Your task to perform on an android device: Open Android settings Image 0: 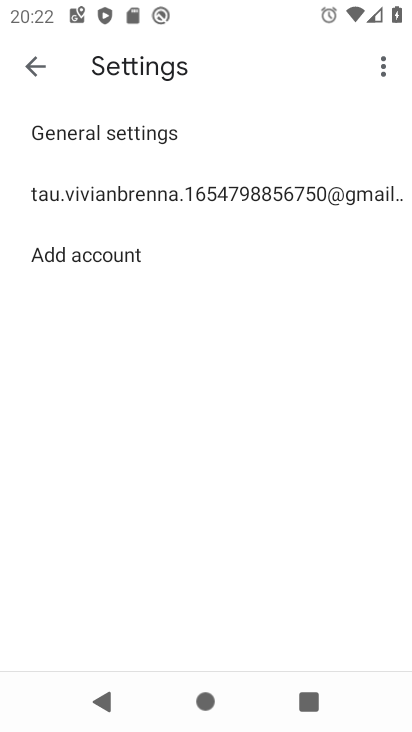
Step 0: press home button
Your task to perform on an android device: Open Android settings Image 1: 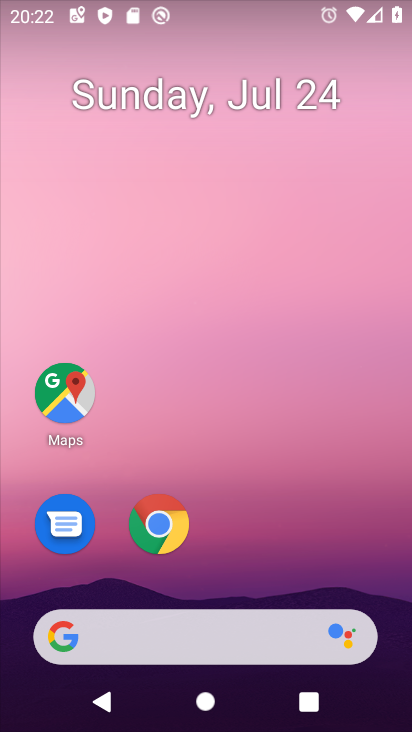
Step 1: drag from (268, 539) to (288, 0)
Your task to perform on an android device: Open Android settings Image 2: 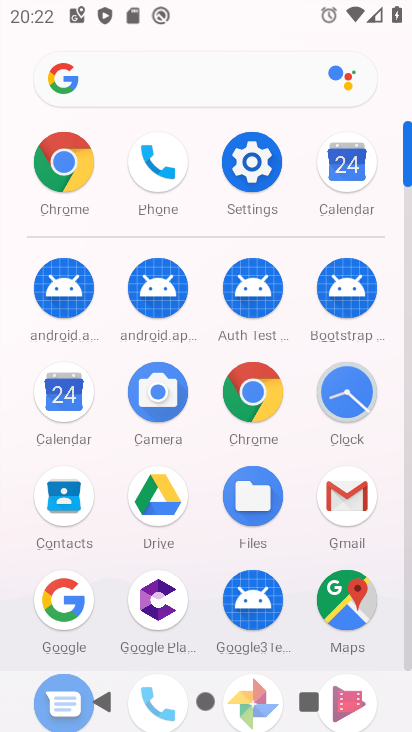
Step 2: drag from (216, 589) to (240, 10)
Your task to perform on an android device: Open Android settings Image 3: 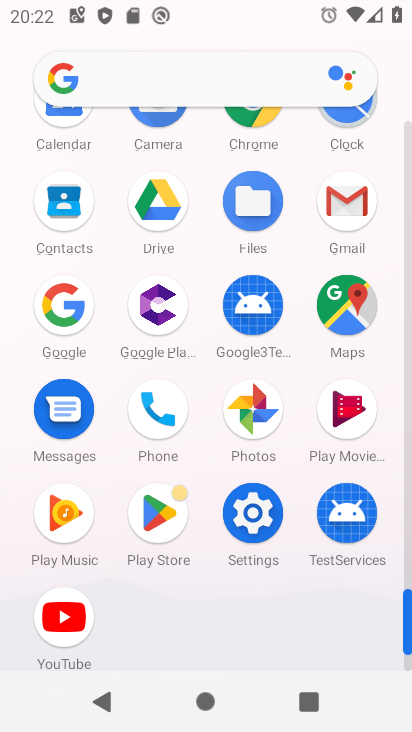
Step 3: click (246, 521)
Your task to perform on an android device: Open Android settings Image 4: 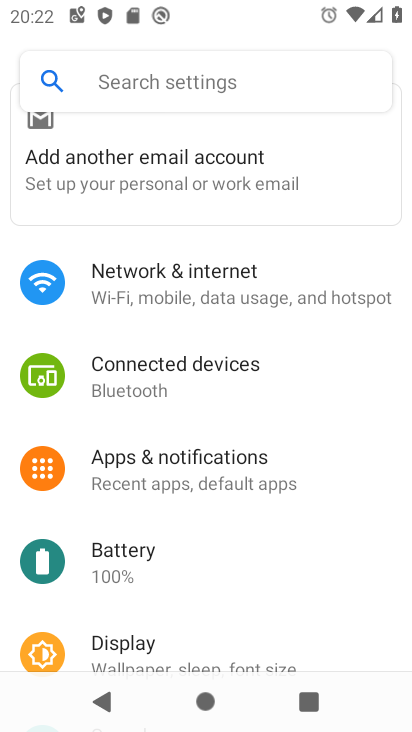
Step 4: drag from (235, 618) to (262, 5)
Your task to perform on an android device: Open Android settings Image 5: 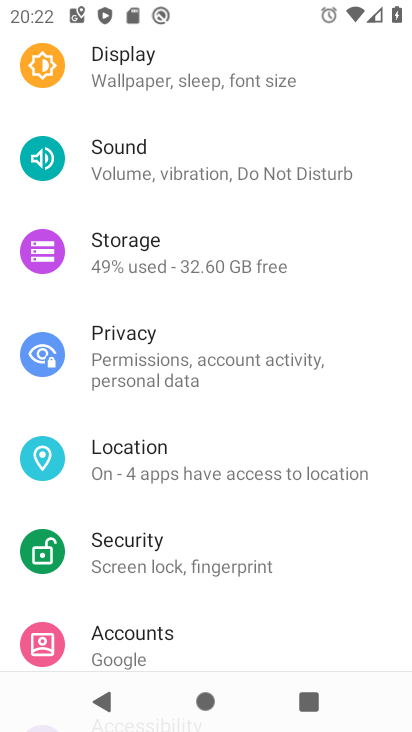
Step 5: drag from (254, 616) to (227, 6)
Your task to perform on an android device: Open Android settings Image 6: 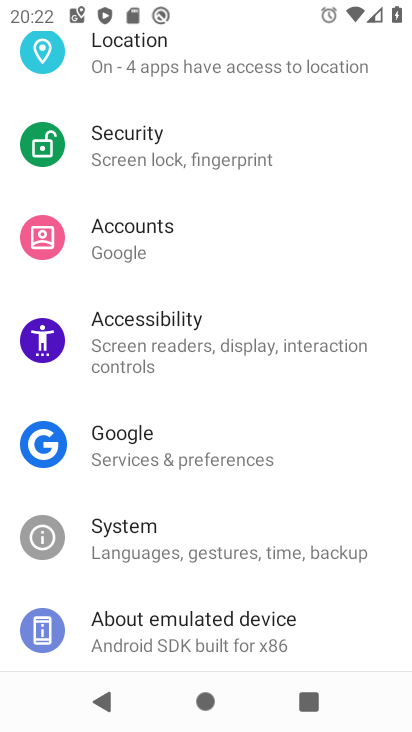
Step 6: click (202, 634)
Your task to perform on an android device: Open Android settings Image 7: 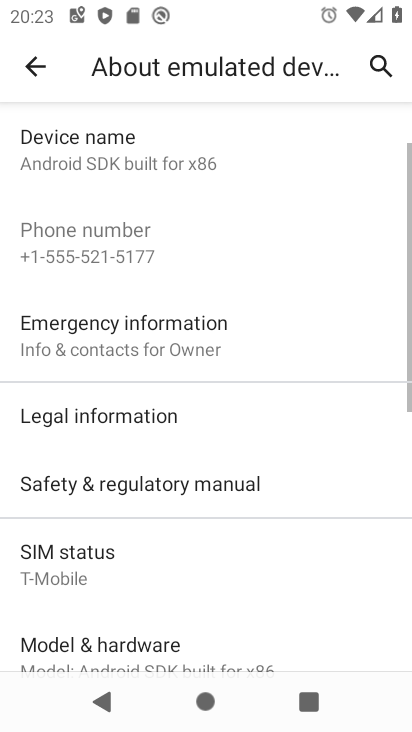
Step 7: task complete